Your task to perform on an android device: change timer sound Image 0: 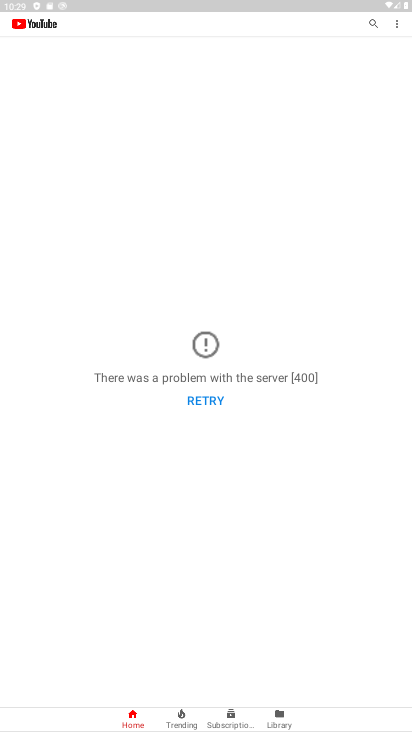
Step 0: press home button
Your task to perform on an android device: change timer sound Image 1: 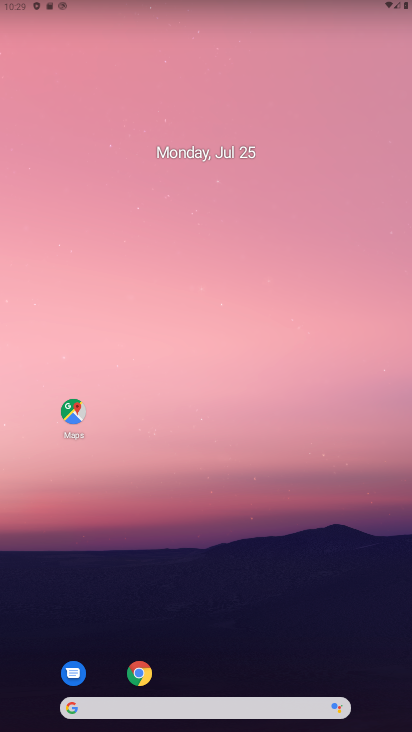
Step 1: drag from (220, 660) to (249, 79)
Your task to perform on an android device: change timer sound Image 2: 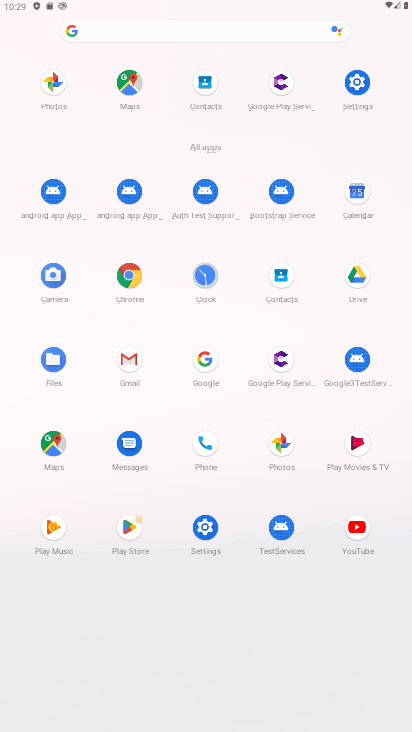
Step 2: click (198, 274)
Your task to perform on an android device: change timer sound Image 3: 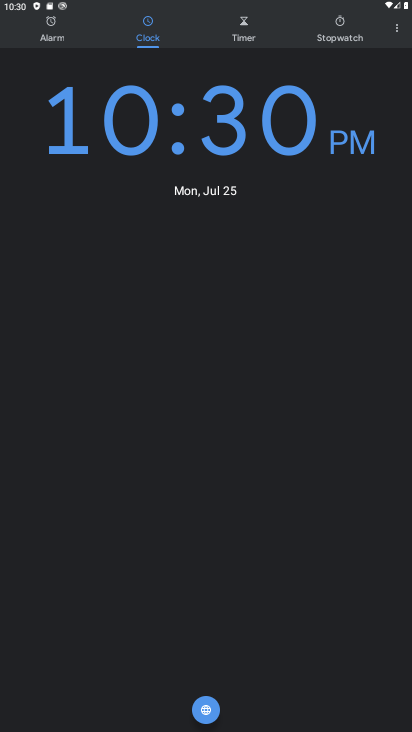
Step 3: click (245, 16)
Your task to perform on an android device: change timer sound Image 4: 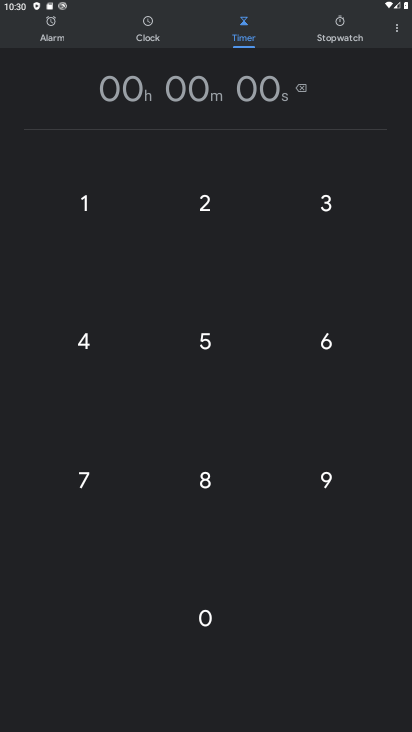
Step 4: click (387, 25)
Your task to perform on an android device: change timer sound Image 5: 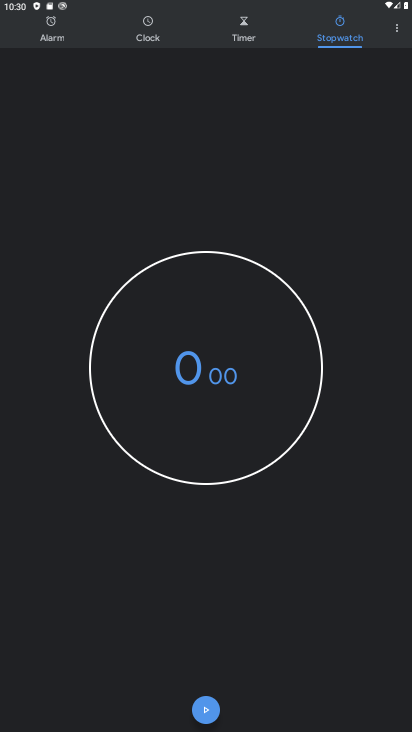
Step 5: click (402, 31)
Your task to perform on an android device: change timer sound Image 6: 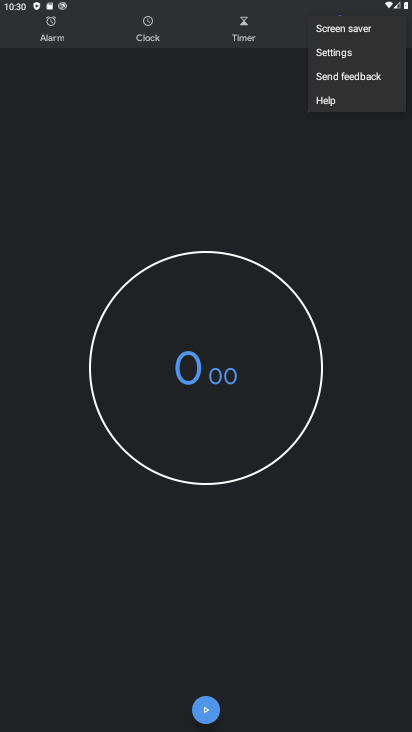
Step 6: click (350, 46)
Your task to perform on an android device: change timer sound Image 7: 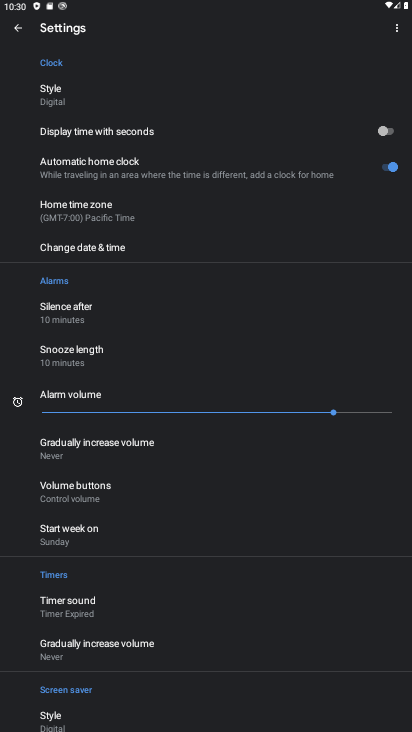
Step 7: click (111, 605)
Your task to perform on an android device: change timer sound Image 8: 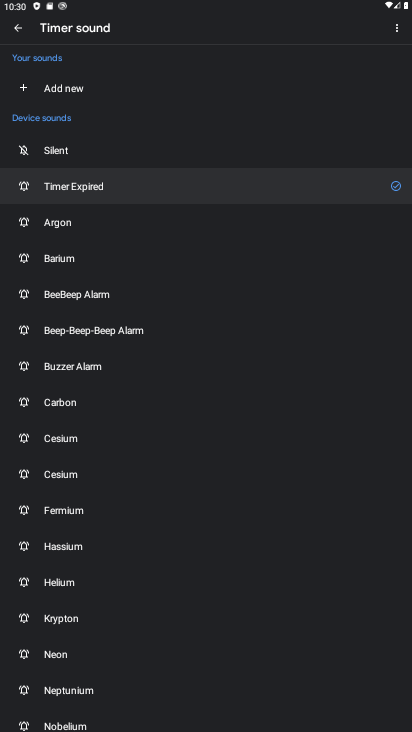
Step 8: click (83, 469)
Your task to perform on an android device: change timer sound Image 9: 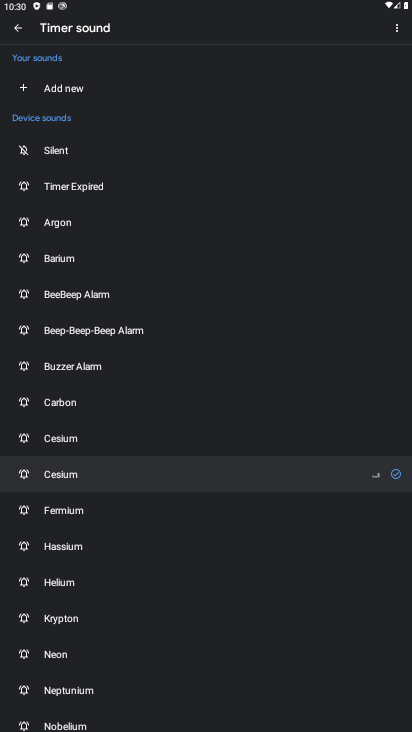
Step 9: task complete